Your task to perform on an android device: change the clock display to show seconds Image 0: 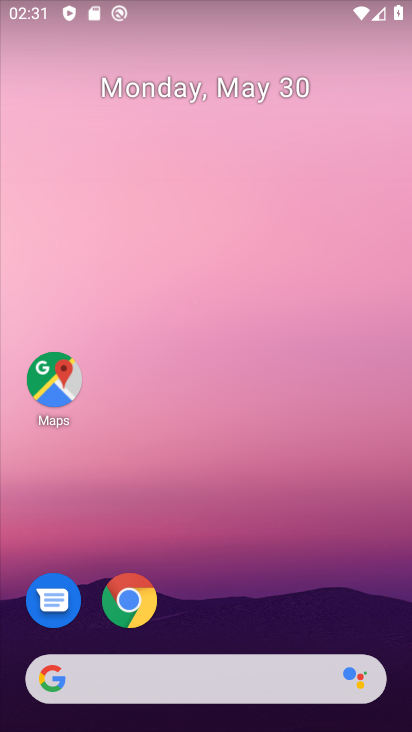
Step 0: drag from (244, 604) to (305, 55)
Your task to perform on an android device: change the clock display to show seconds Image 1: 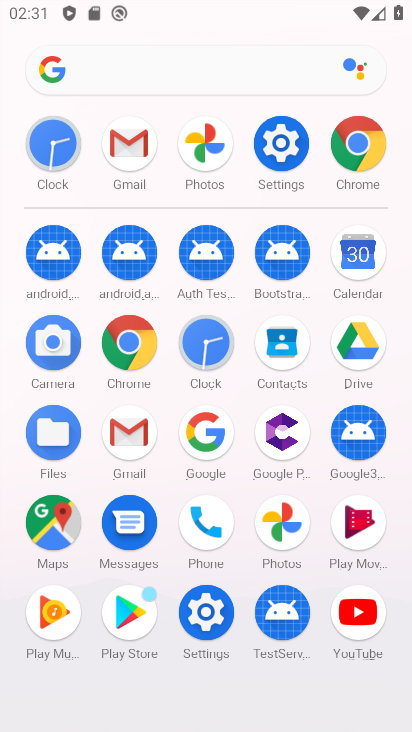
Step 1: click (60, 147)
Your task to perform on an android device: change the clock display to show seconds Image 2: 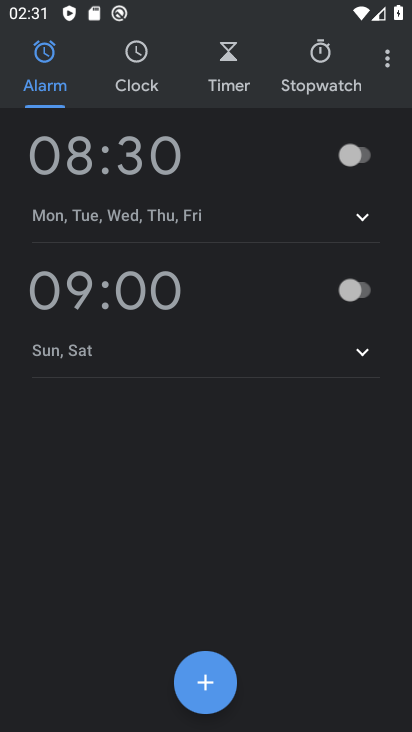
Step 2: click (391, 60)
Your task to perform on an android device: change the clock display to show seconds Image 3: 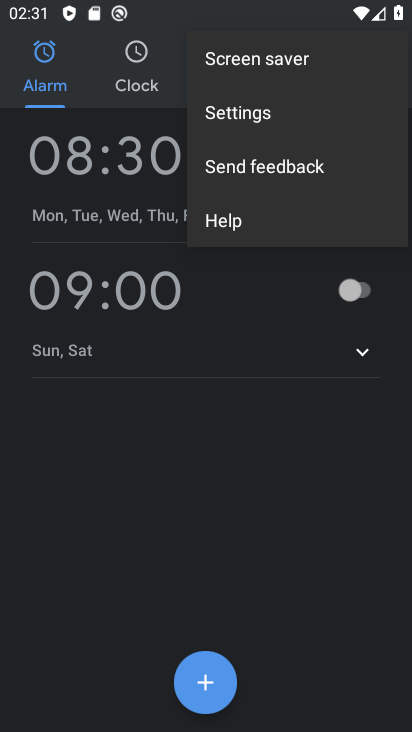
Step 3: click (259, 106)
Your task to perform on an android device: change the clock display to show seconds Image 4: 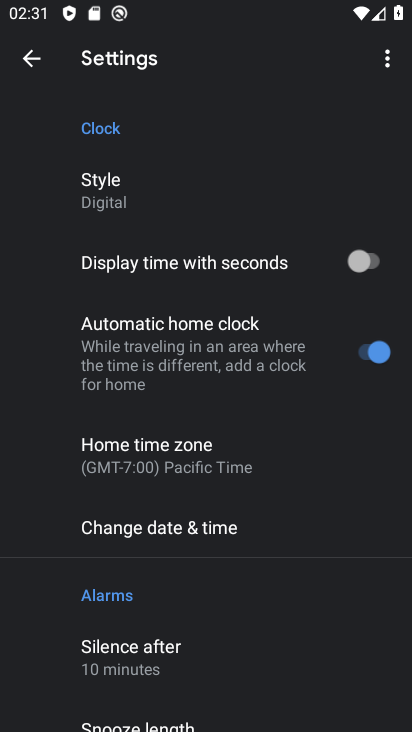
Step 4: click (377, 258)
Your task to perform on an android device: change the clock display to show seconds Image 5: 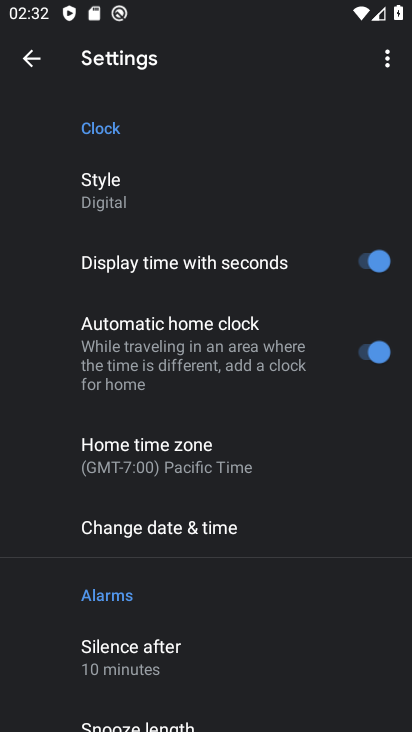
Step 5: task complete